Your task to perform on an android device: turn off notifications settings in the gmail app Image 0: 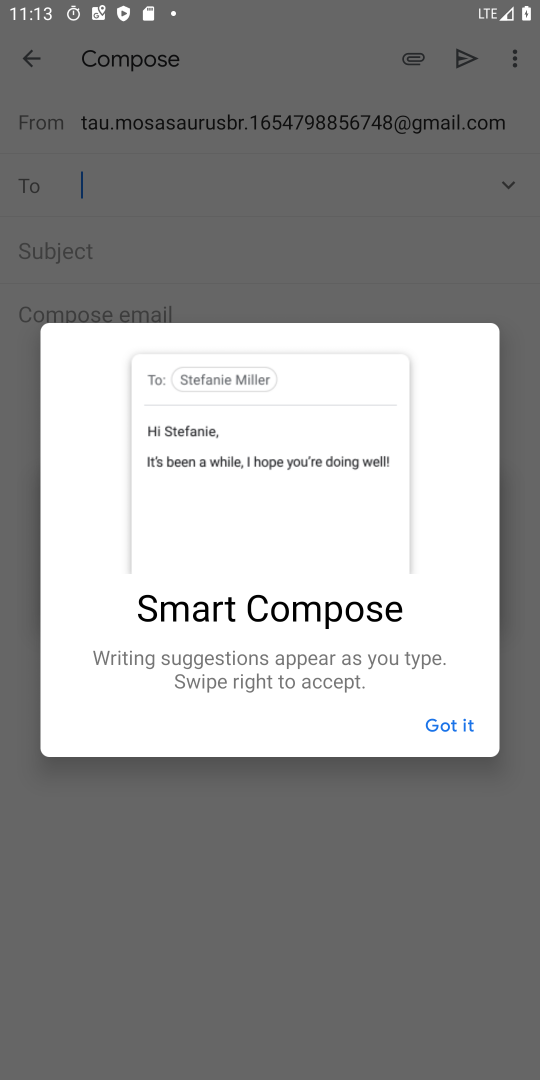
Step 0: press home button
Your task to perform on an android device: turn off notifications settings in the gmail app Image 1: 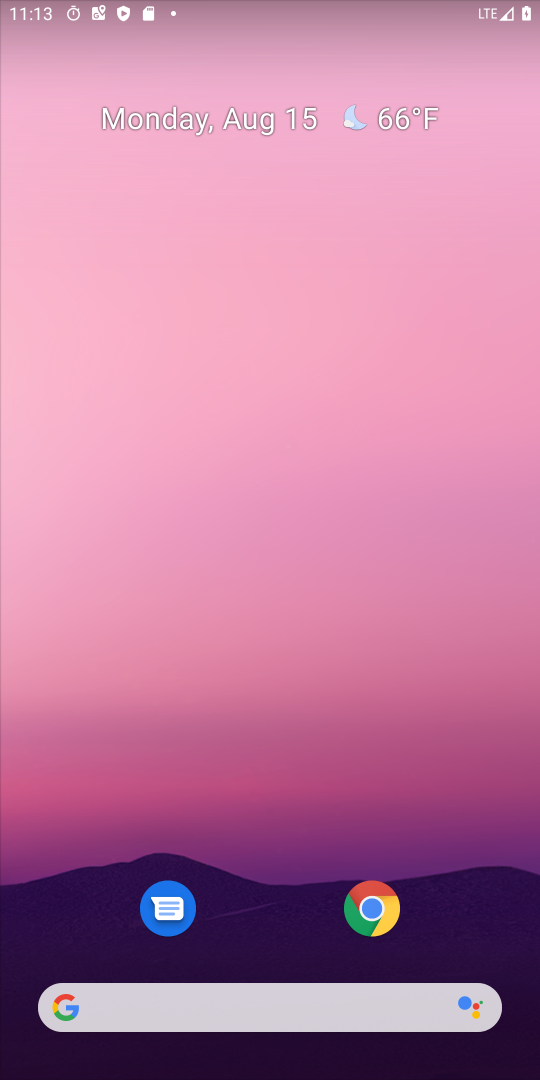
Step 1: drag from (298, 924) to (418, 179)
Your task to perform on an android device: turn off notifications settings in the gmail app Image 2: 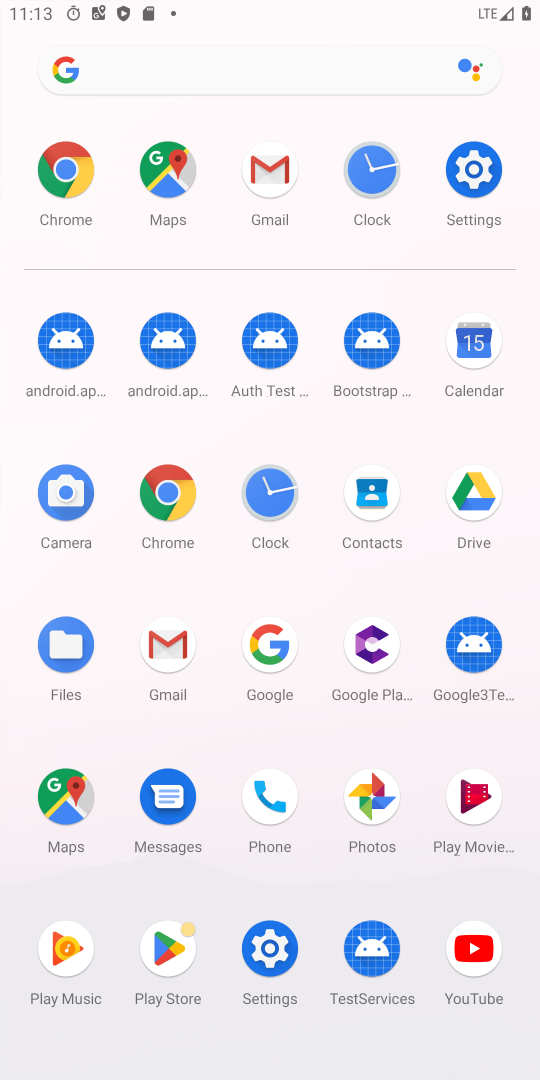
Step 2: click (451, 179)
Your task to perform on an android device: turn off notifications settings in the gmail app Image 3: 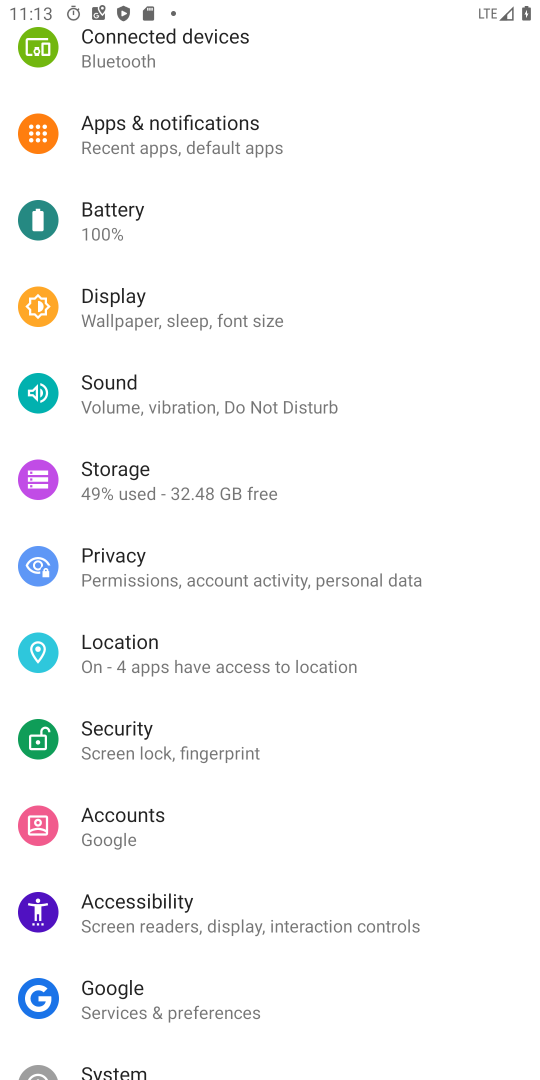
Step 3: click (184, 129)
Your task to perform on an android device: turn off notifications settings in the gmail app Image 4: 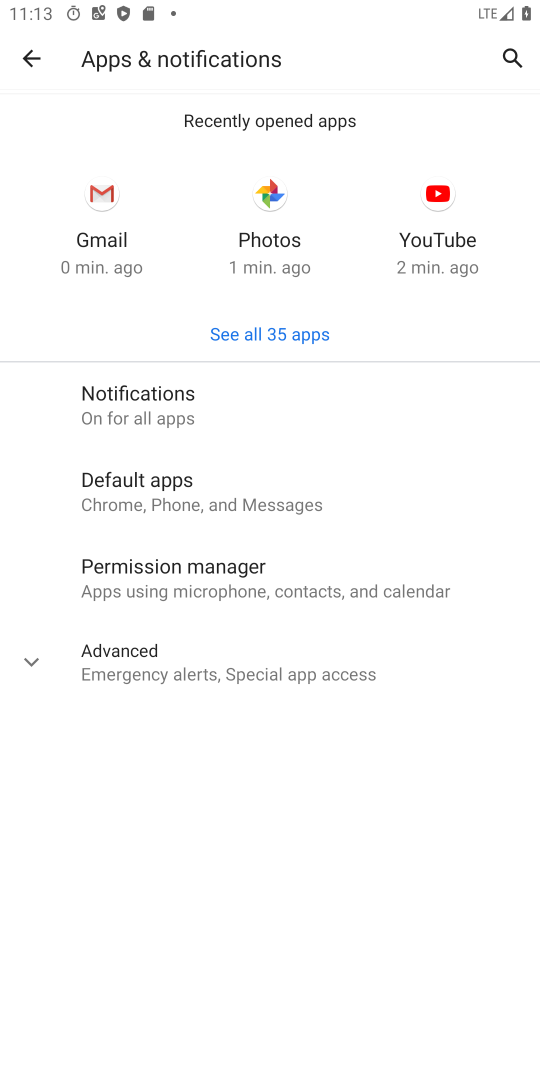
Step 4: click (87, 207)
Your task to perform on an android device: turn off notifications settings in the gmail app Image 5: 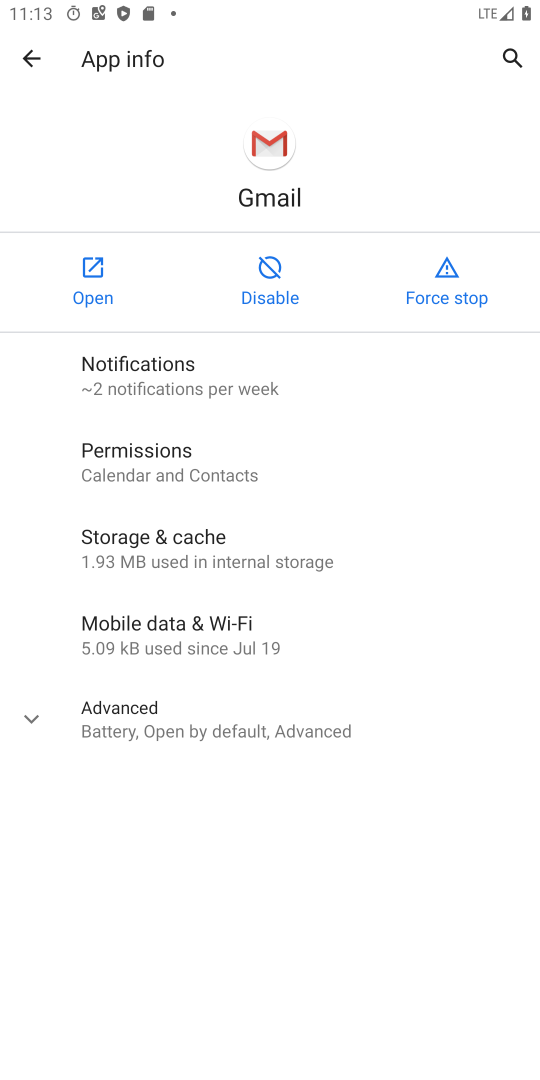
Step 5: click (269, 377)
Your task to perform on an android device: turn off notifications settings in the gmail app Image 6: 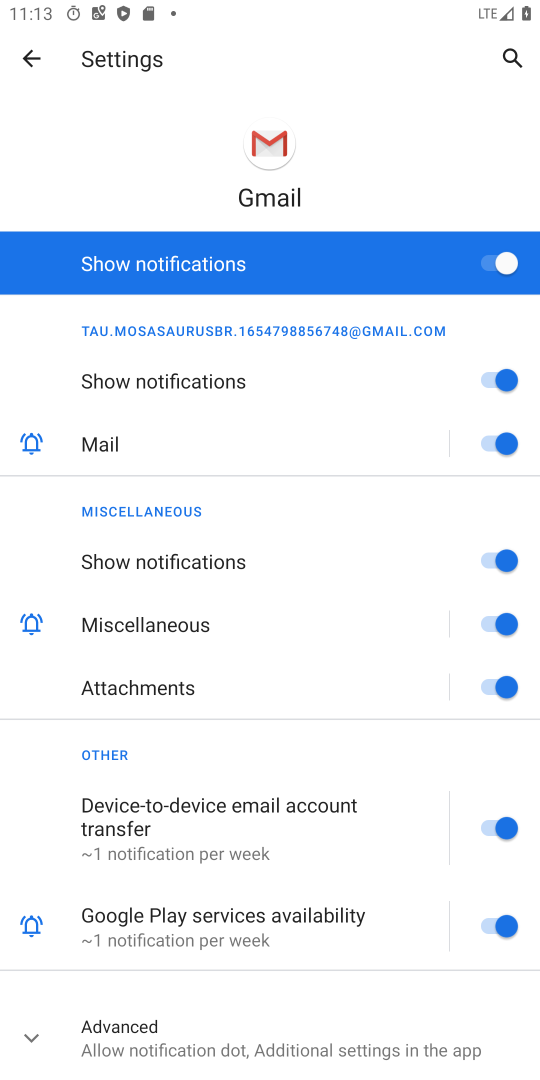
Step 6: click (494, 264)
Your task to perform on an android device: turn off notifications settings in the gmail app Image 7: 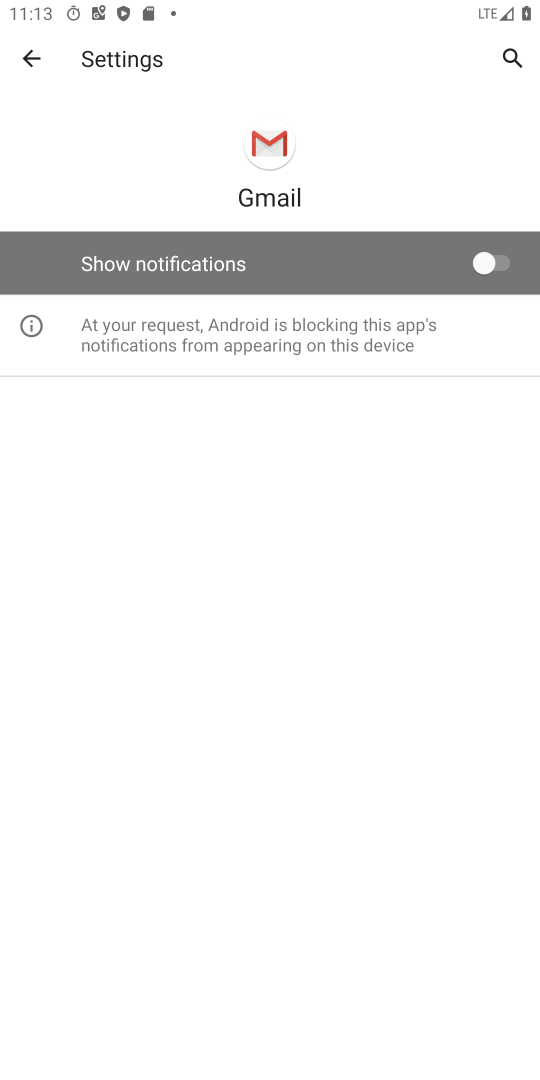
Step 7: task complete